Your task to perform on an android device: Open CNN.com Image 0: 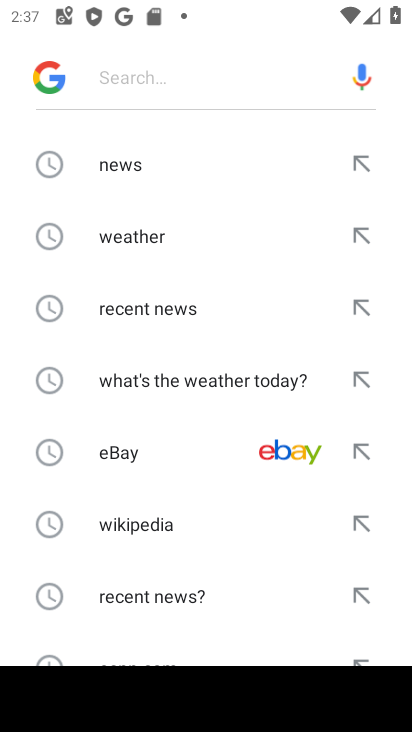
Step 0: press home button
Your task to perform on an android device: Open CNN.com Image 1: 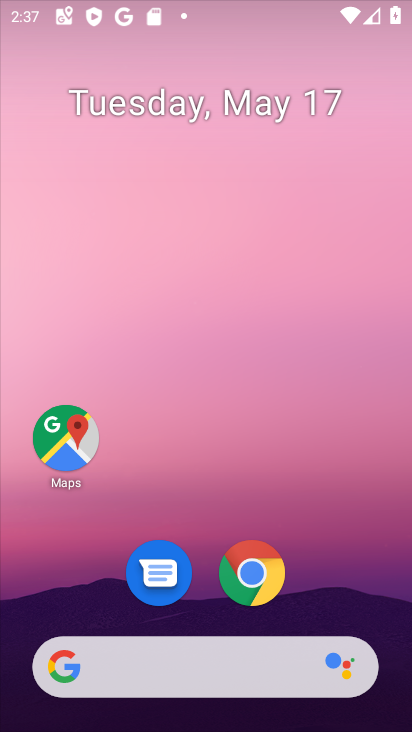
Step 1: drag from (364, 594) to (346, 131)
Your task to perform on an android device: Open CNN.com Image 2: 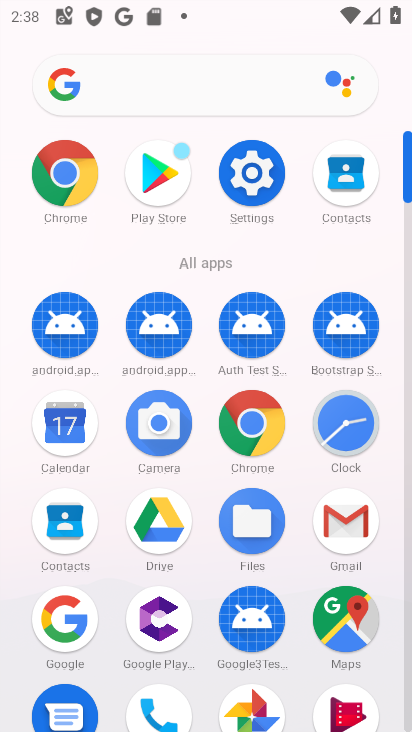
Step 2: click (275, 446)
Your task to perform on an android device: Open CNN.com Image 3: 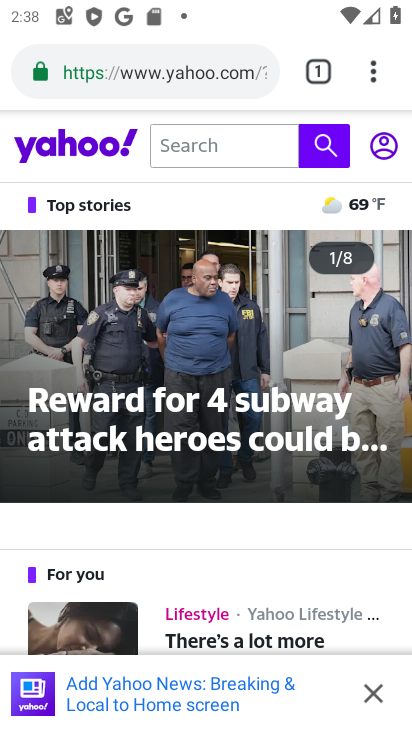
Step 3: click (143, 68)
Your task to perform on an android device: Open CNN.com Image 4: 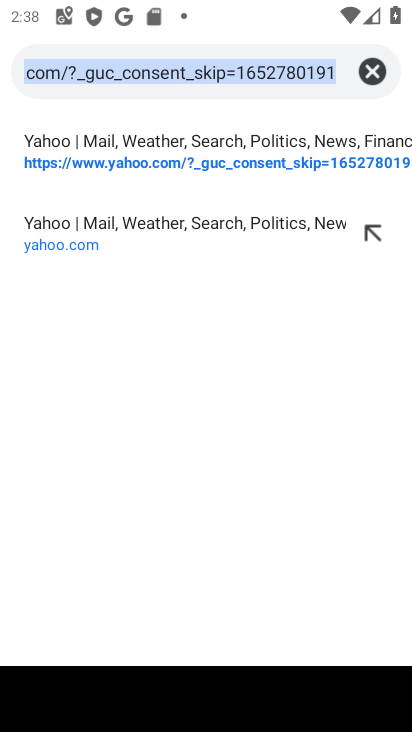
Step 4: click (369, 69)
Your task to perform on an android device: Open CNN.com Image 5: 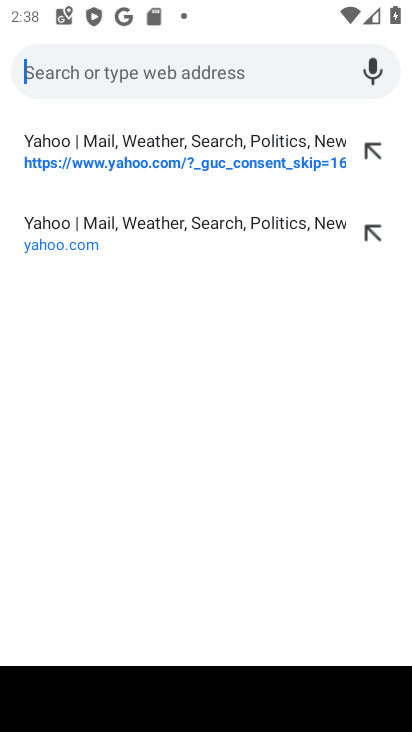
Step 5: type "cnn.com"
Your task to perform on an android device: Open CNN.com Image 6: 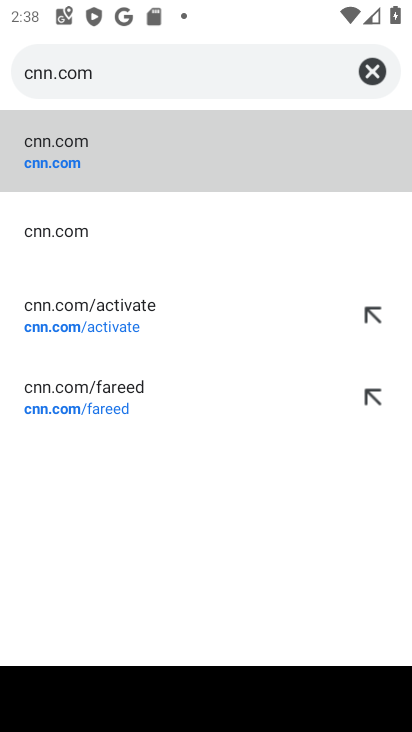
Step 6: click (46, 196)
Your task to perform on an android device: Open CNN.com Image 7: 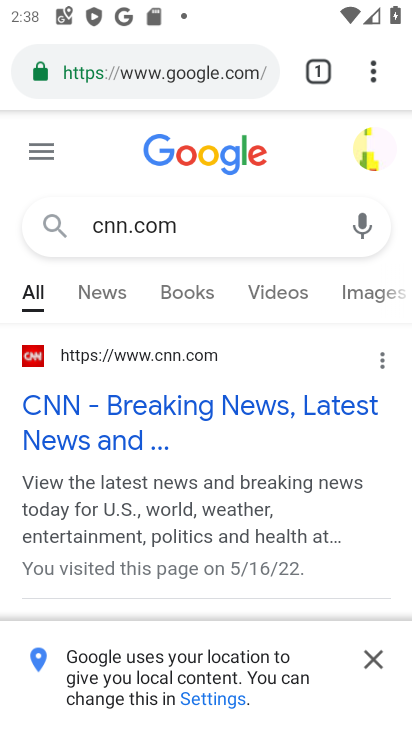
Step 7: click (233, 408)
Your task to perform on an android device: Open CNN.com Image 8: 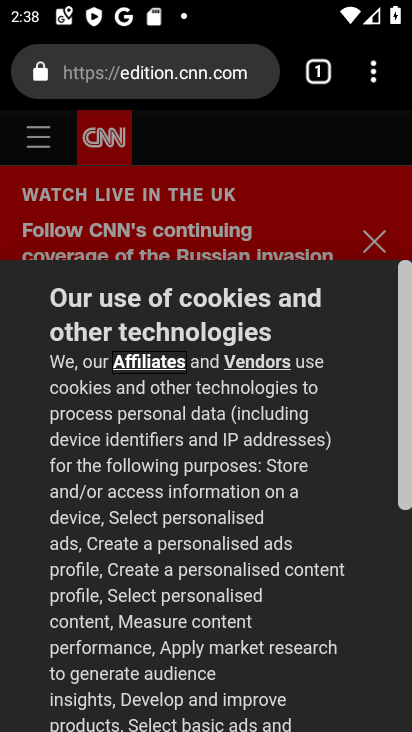
Step 8: task complete